Your task to perform on an android device: change alarm snooze length Image 0: 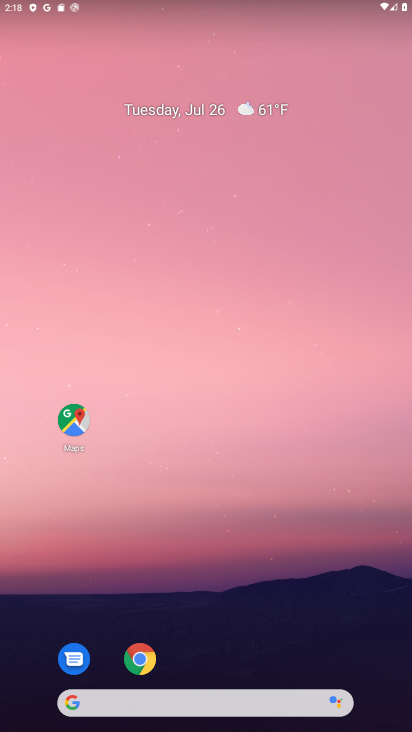
Step 0: drag from (381, 676) to (260, 79)
Your task to perform on an android device: change alarm snooze length Image 1: 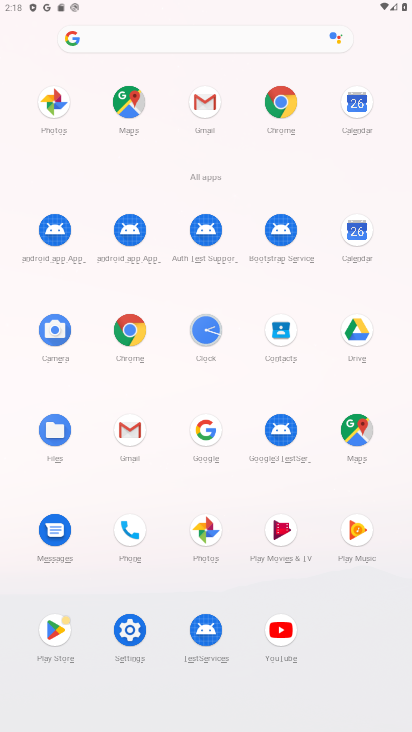
Step 1: click (201, 337)
Your task to perform on an android device: change alarm snooze length Image 2: 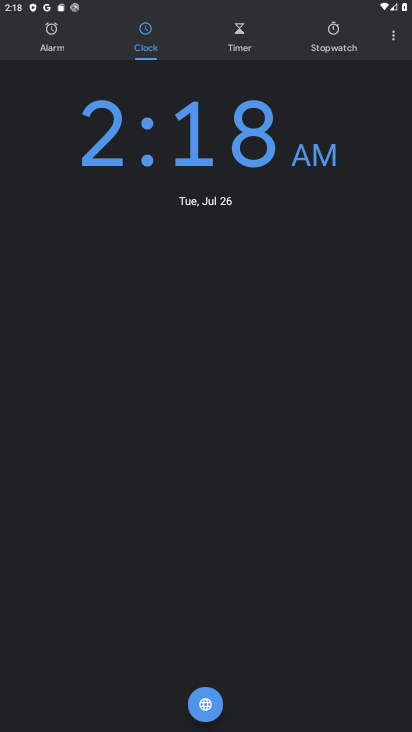
Step 2: click (391, 31)
Your task to perform on an android device: change alarm snooze length Image 3: 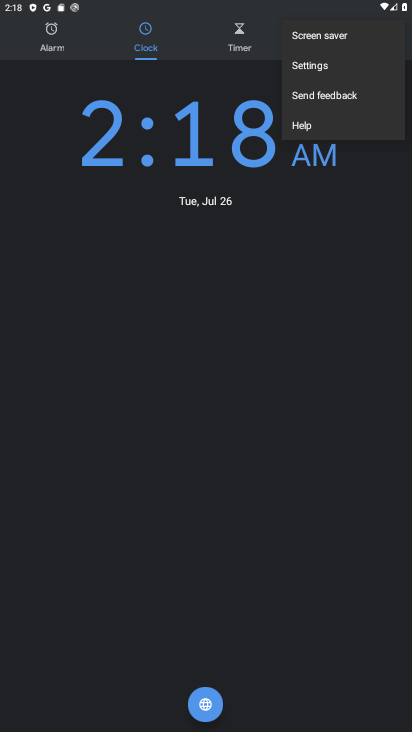
Step 3: click (309, 62)
Your task to perform on an android device: change alarm snooze length Image 4: 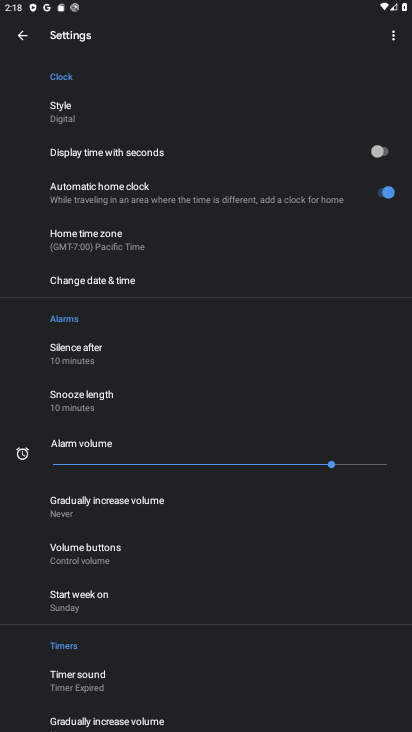
Step 4: click (75, 401)
Your task to perform on an android device: change alarm snooze length Image 5: 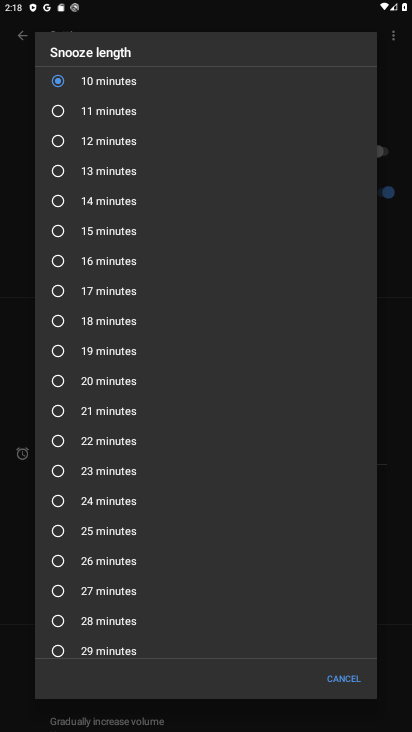
Step 5: click (60, 438)
Your task to perform on an android device: change alarm snooze length Image 6: 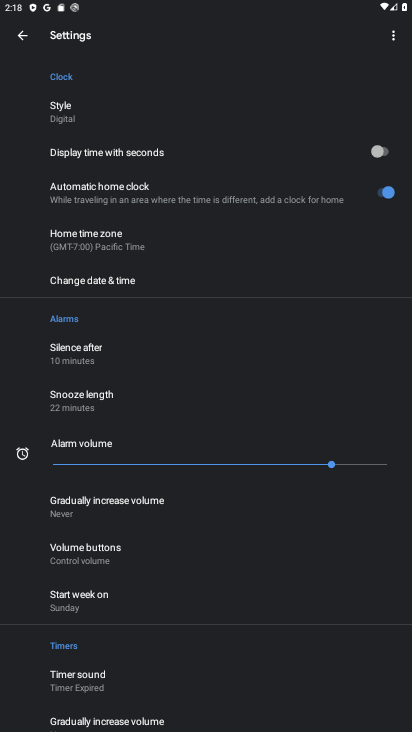
Step 6: task complete